Your task to perform on an android device: delete the emails in spam in the gmail app Image 0: 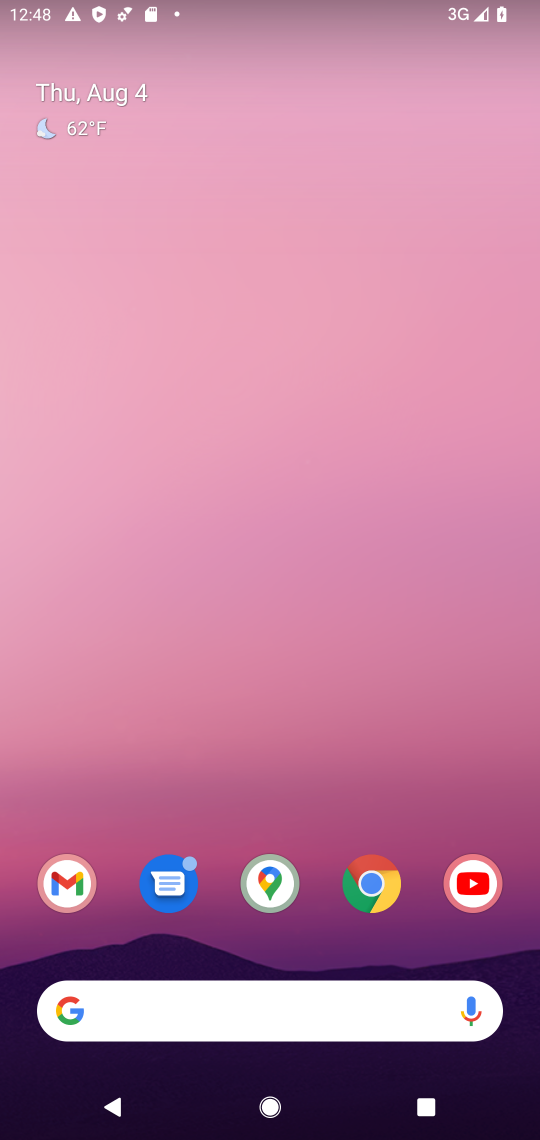
Step 0: drag from (234, 958) to (299, 247)
Your task to perform on an android device: delete the emails in spam in the gmail app Image 1: 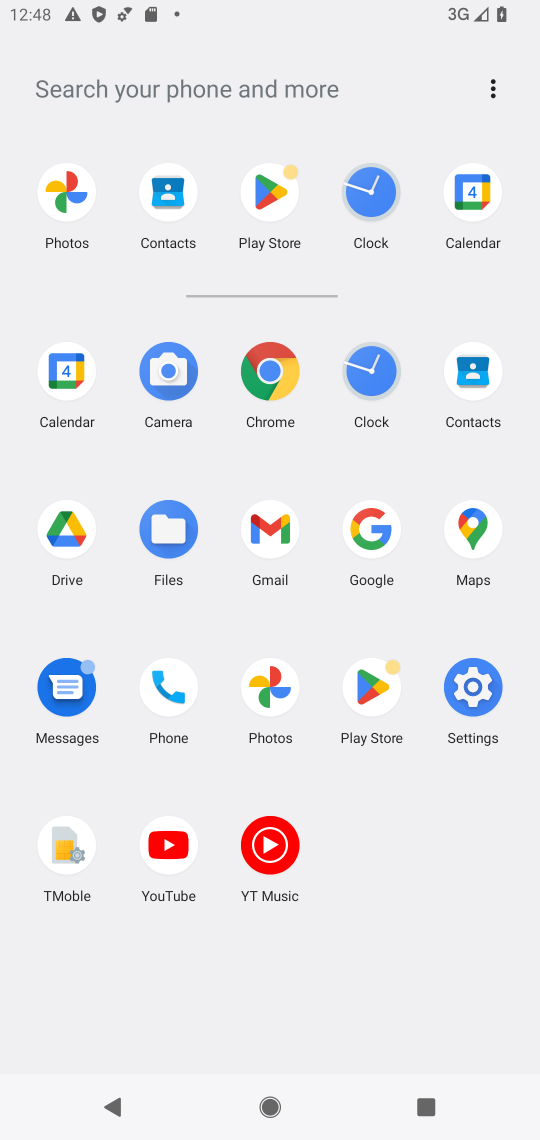
Step 1: click (278, 523)
Your task to perform on an android device: delete the emails in spam in the gmail app Image 2: 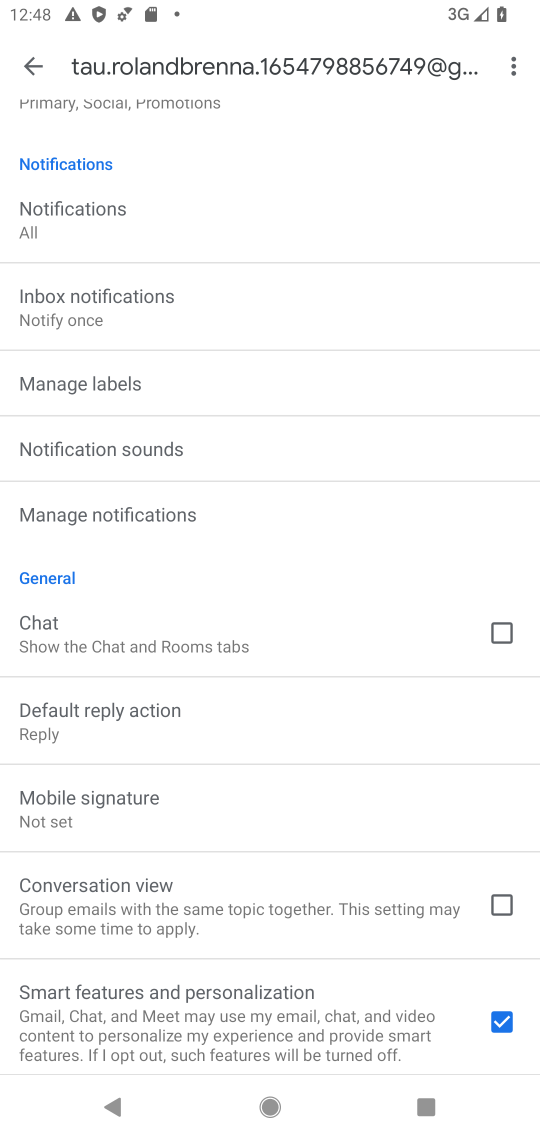
Step 2: click (19, 52)
Your task to perform on an android device: delete the emails in spam in the gmail app Image 3: 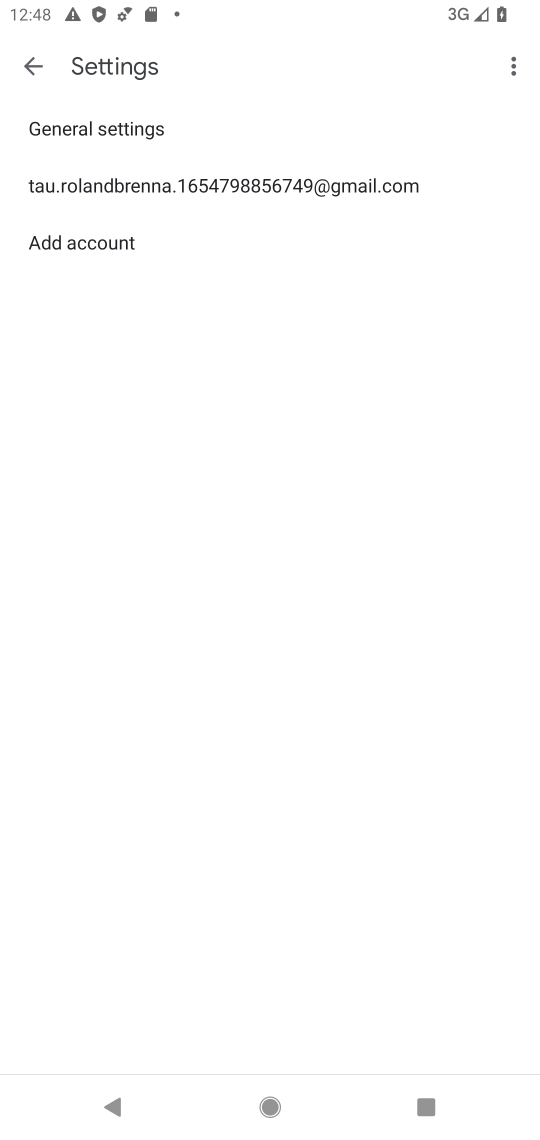
Step 3: press back button
Your task to perform on an android device: delete the emails in spam in the gmail app Image 4: 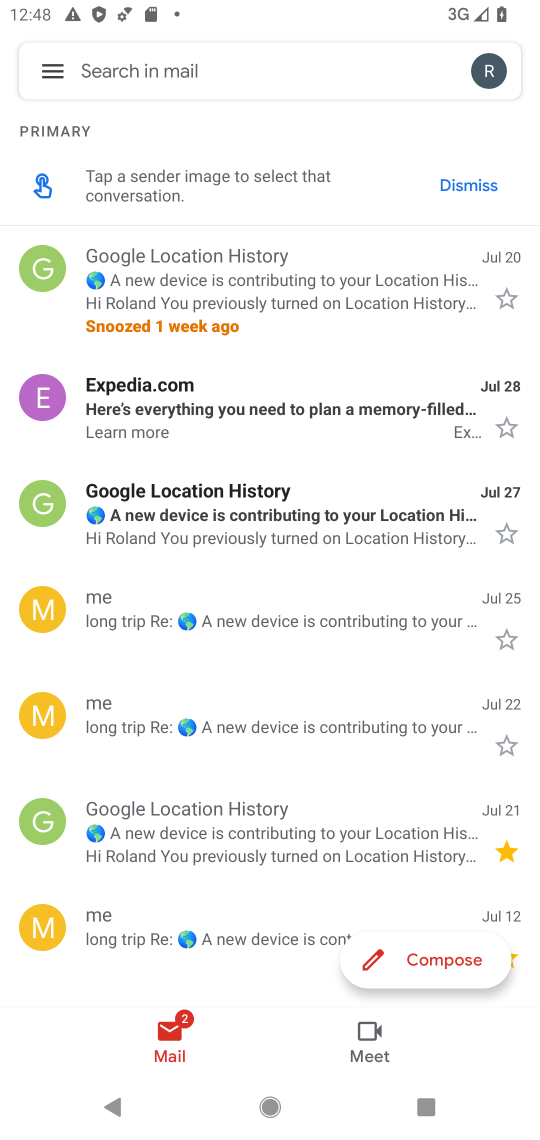
Step 4: click (51, 86)
Your task to perform on an android device: delete the emails in spam in the gmail app Image 5: 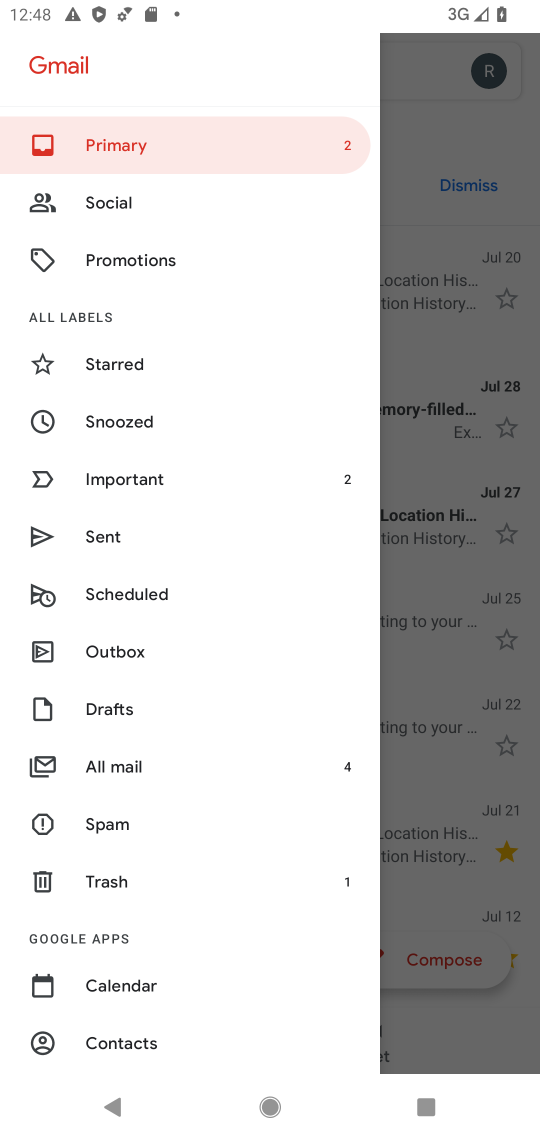
Step 5: click (122, 880)
Your task to perform on an android device: delete the emails in spam in the gmail app Image 6: 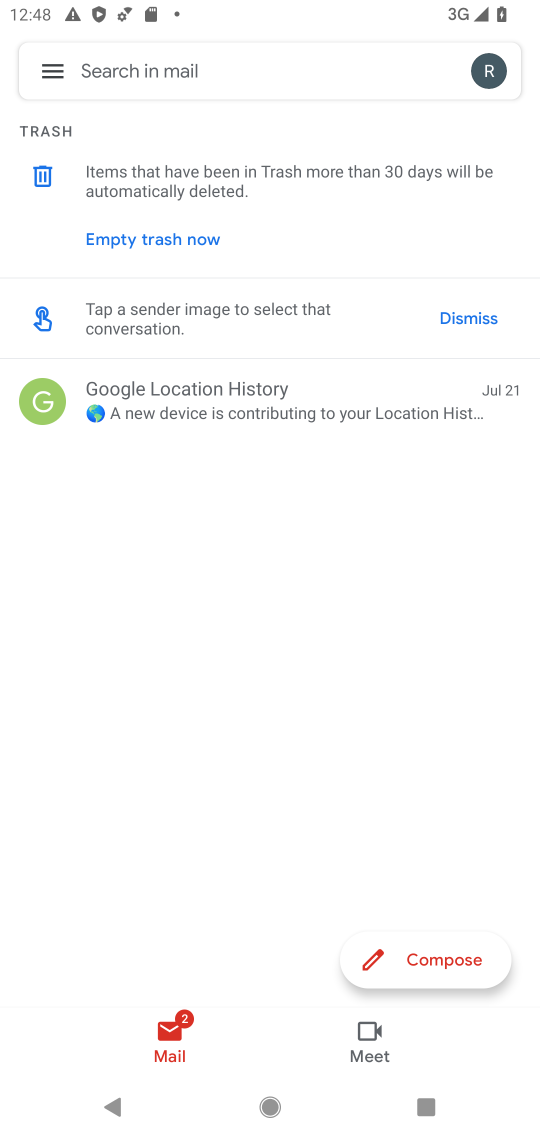
Step 6: click (45, 80)
Your task to perform on an android device: delete the emails in spam in the gmail app Image 7: 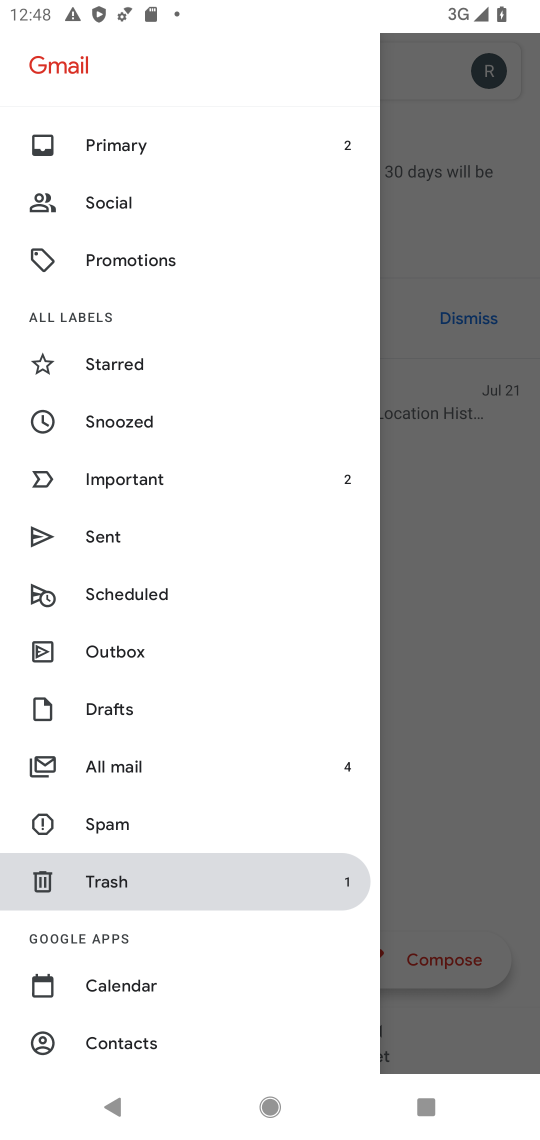
Step 7: click (102, 825)
Your task to perform on an android device: delete the emails in spam in the gmail app Image 8: 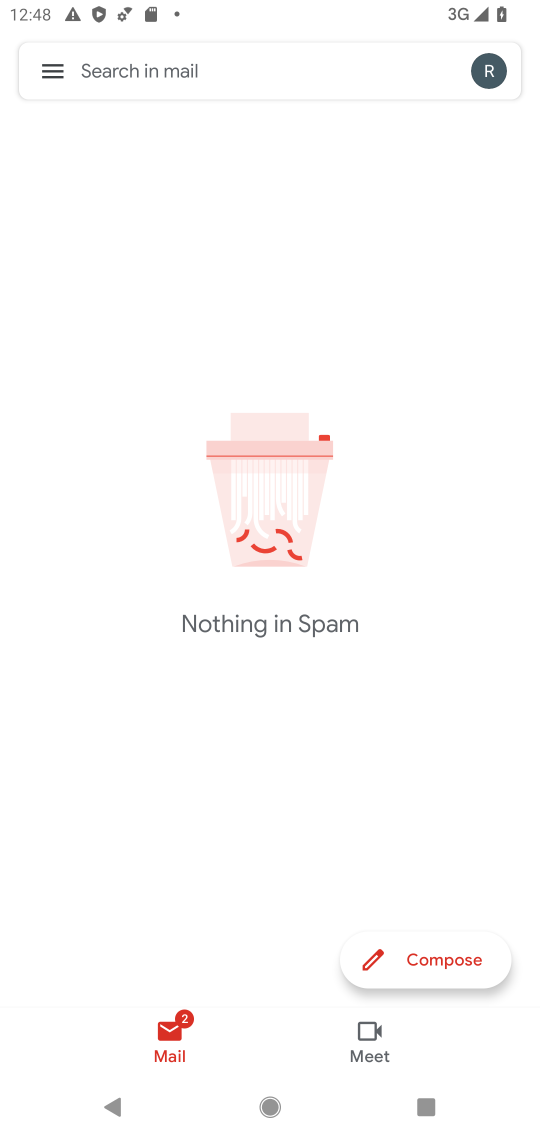
Step 8: task complete